Your task to perform on an android device: What's the weather today? Image 0: 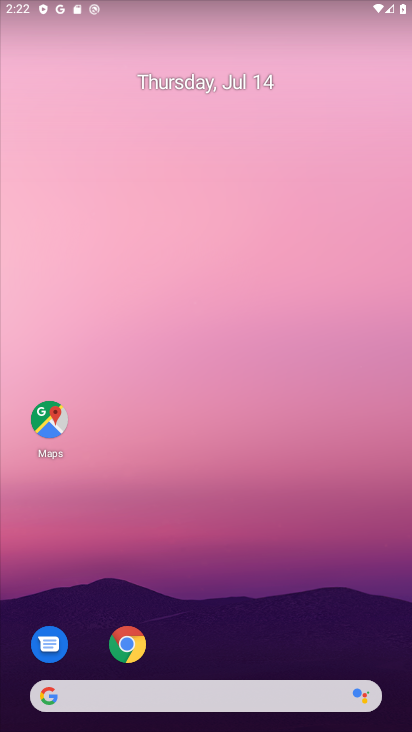
Step 0: drag from (306, 618) to (358, 109)
Your task to perform on an android device: What's the weather today? Image 1: 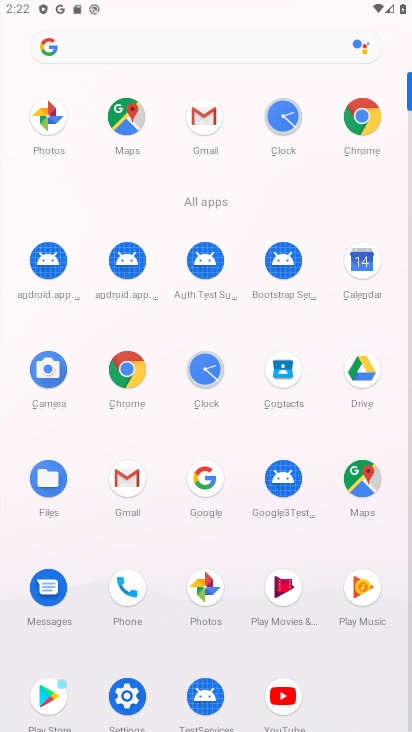
Step 1: click (204, 472)
Your task to perform on an android device: What's the weather today? Image 2: 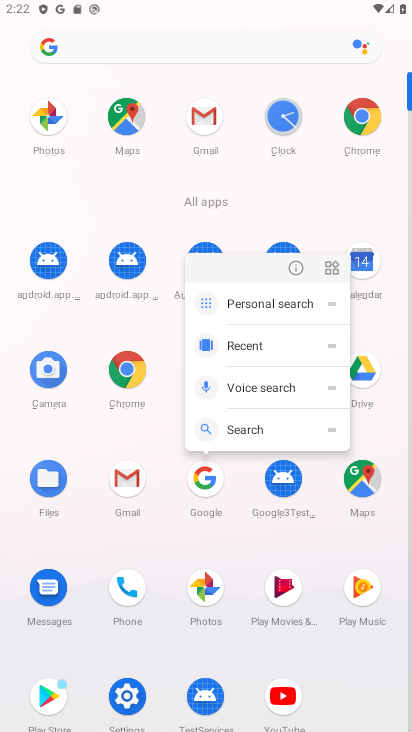
Step 2: click (204, 472)
Your task to perform on an android device: What's the weather today? Image 3: 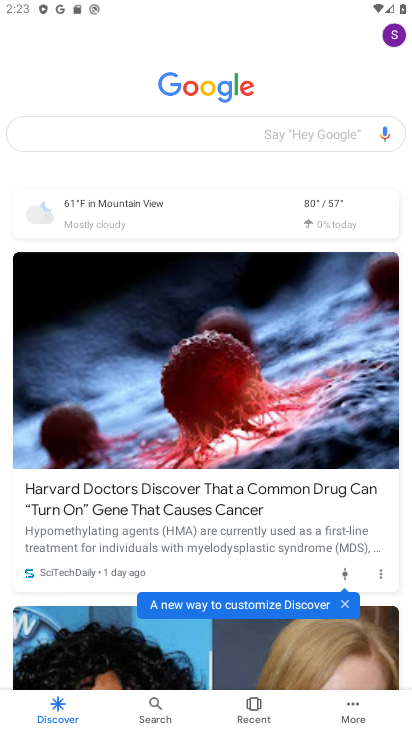
Step 3: click (127, 226)
Your task to perform on an android device: What's the weather today? Image 4: 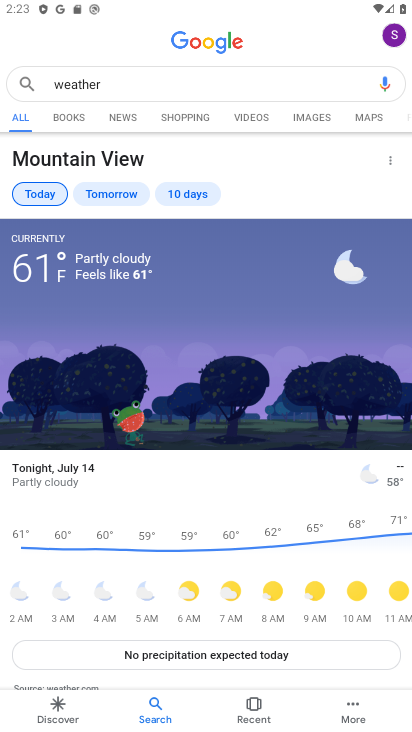
Step 4: task complete